Your task to perform on an android device: open sync settings in chrome Image 0: 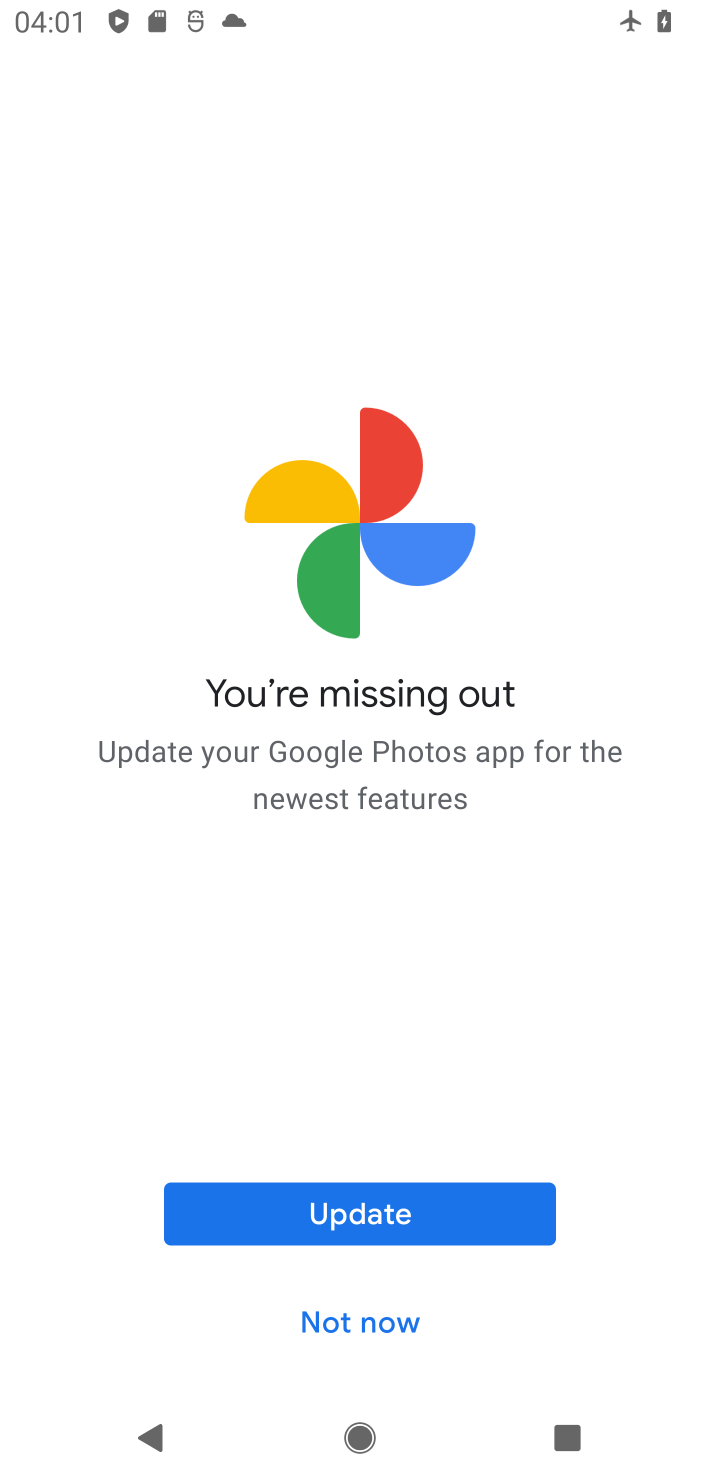
Step 0: press home button
Your task to perform on an android device: open sync settings in chrome Image 1: 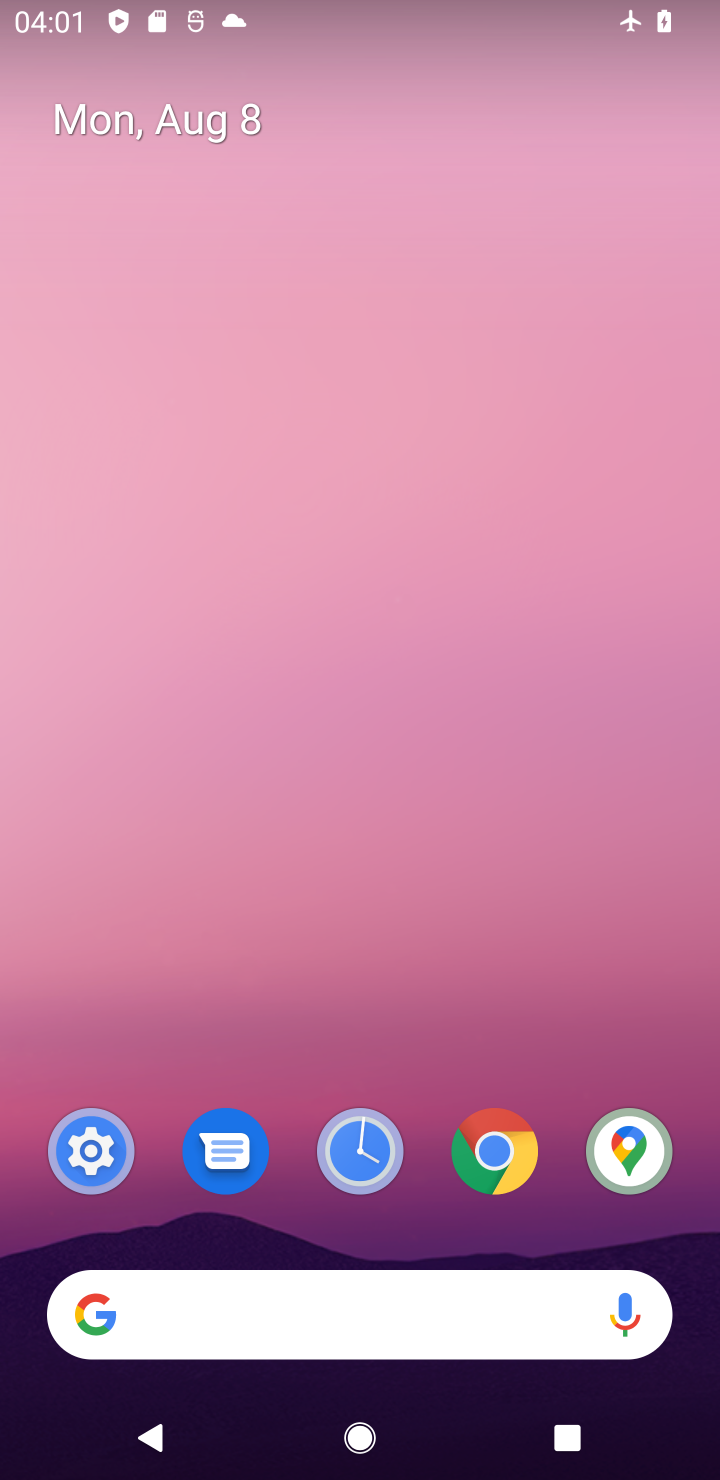
Step 1: click (534, 1137)
Your task to perform on an android device: open sync settings in chrome Image 2: 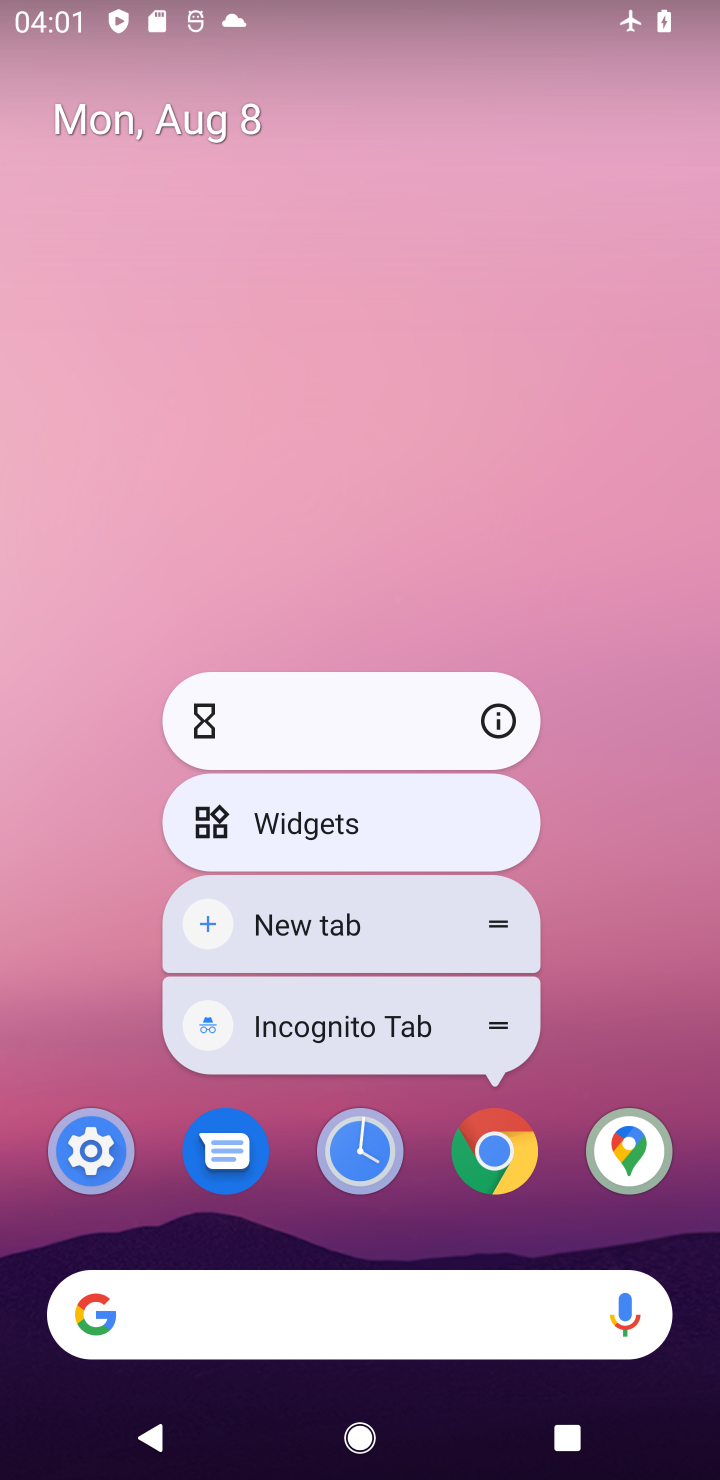
Step 2: click (487, 1168)
Your task to perform on an android device: open sync settings in chrome Image 3: 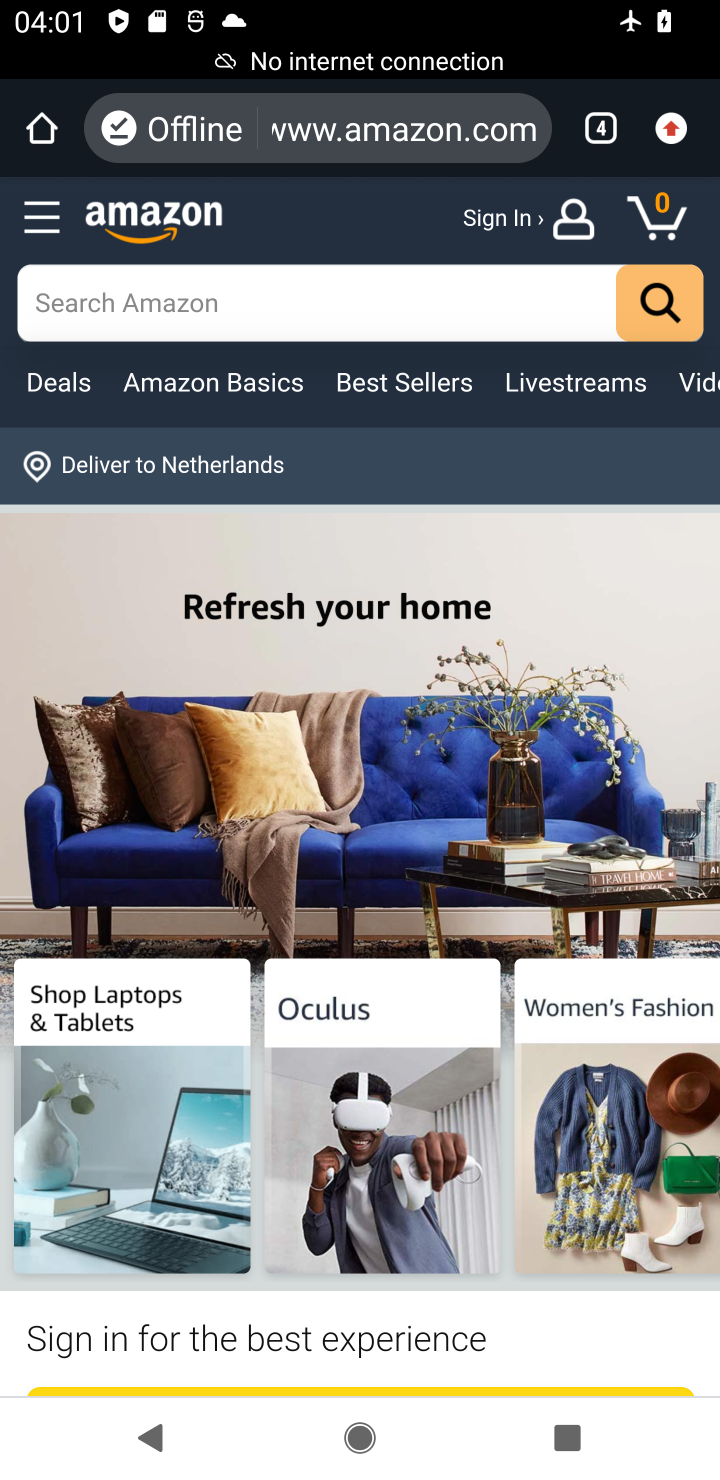
Step 3: click (677, 112)
Your task to perform on an android device: open sync settings in chrome Image 4: 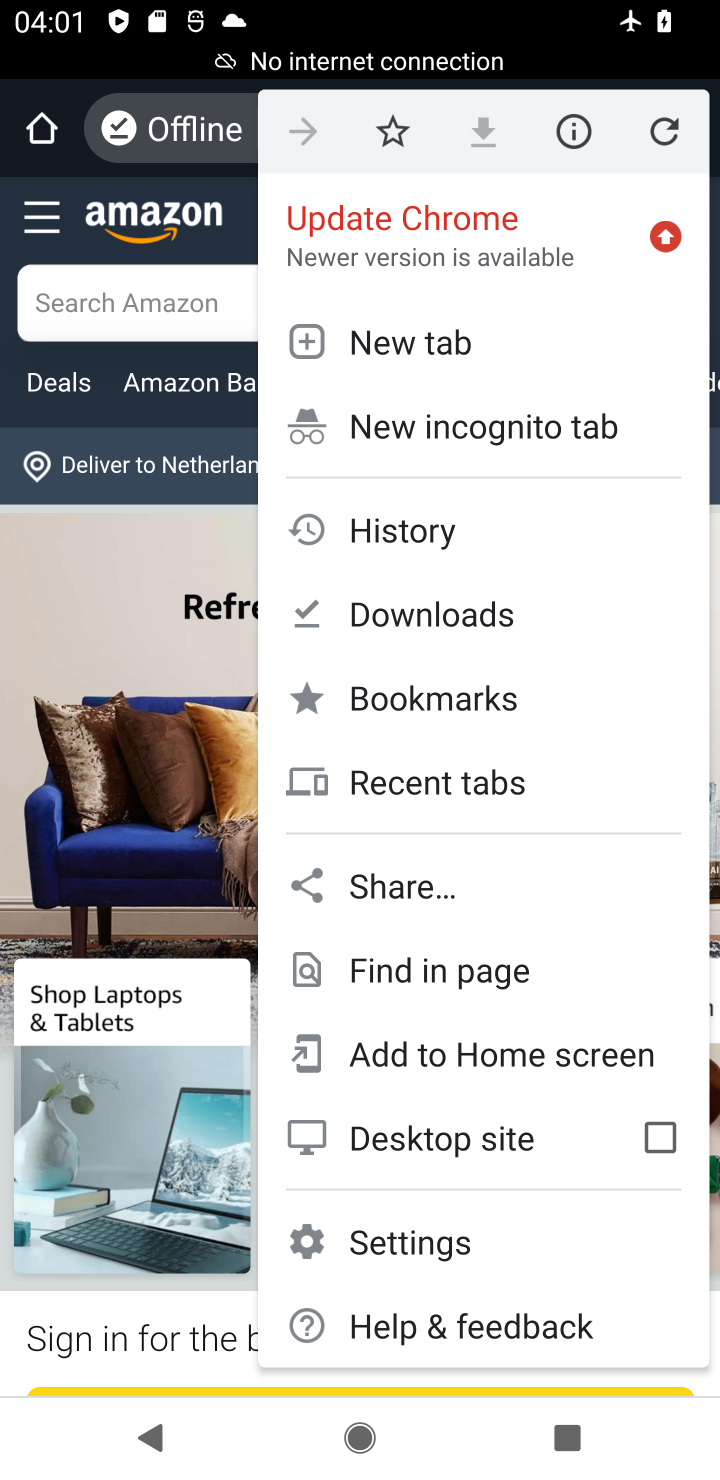
Step 4: click (484, 1237)
Your task to perform on an android device: open sync settings in chrome Image 5: 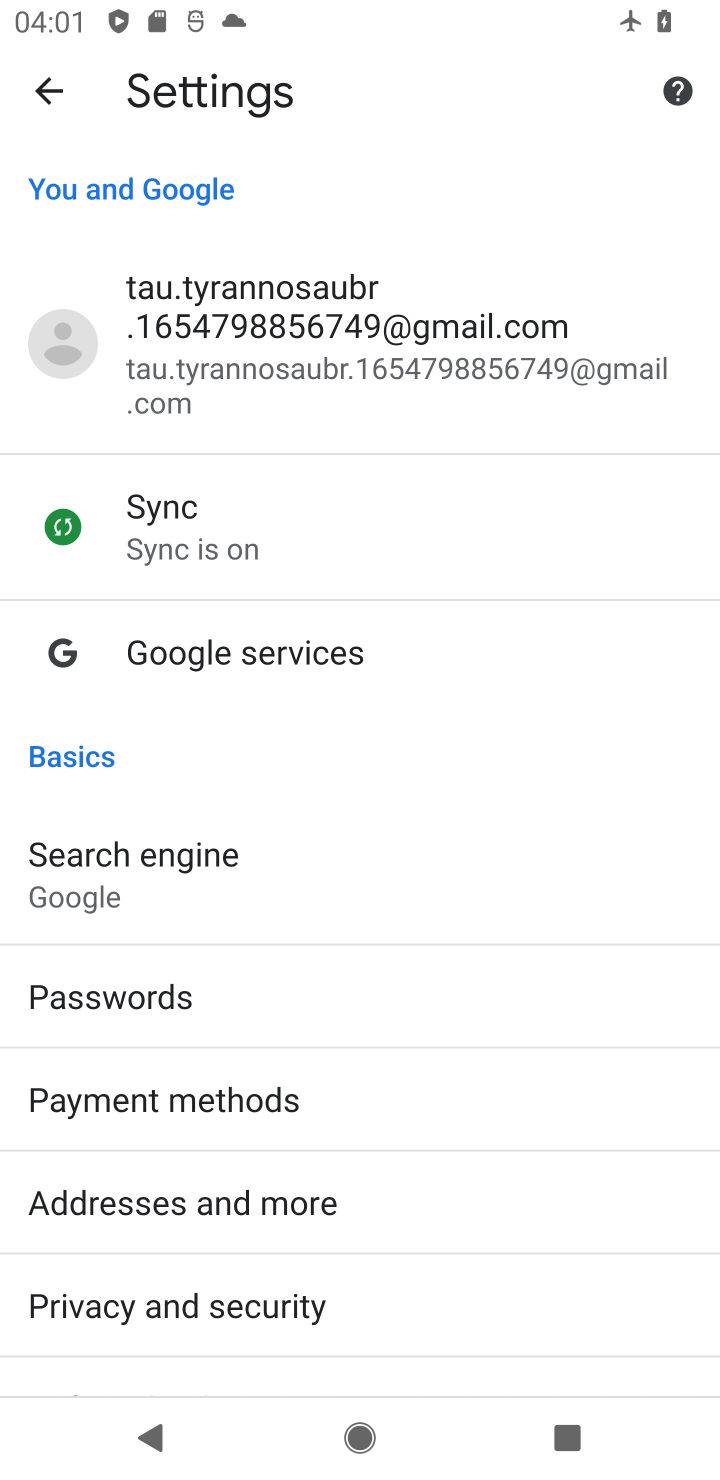
Step 5: click (268, 501)
Your task to perform on an android device: open sync settings in chrome Image 6: 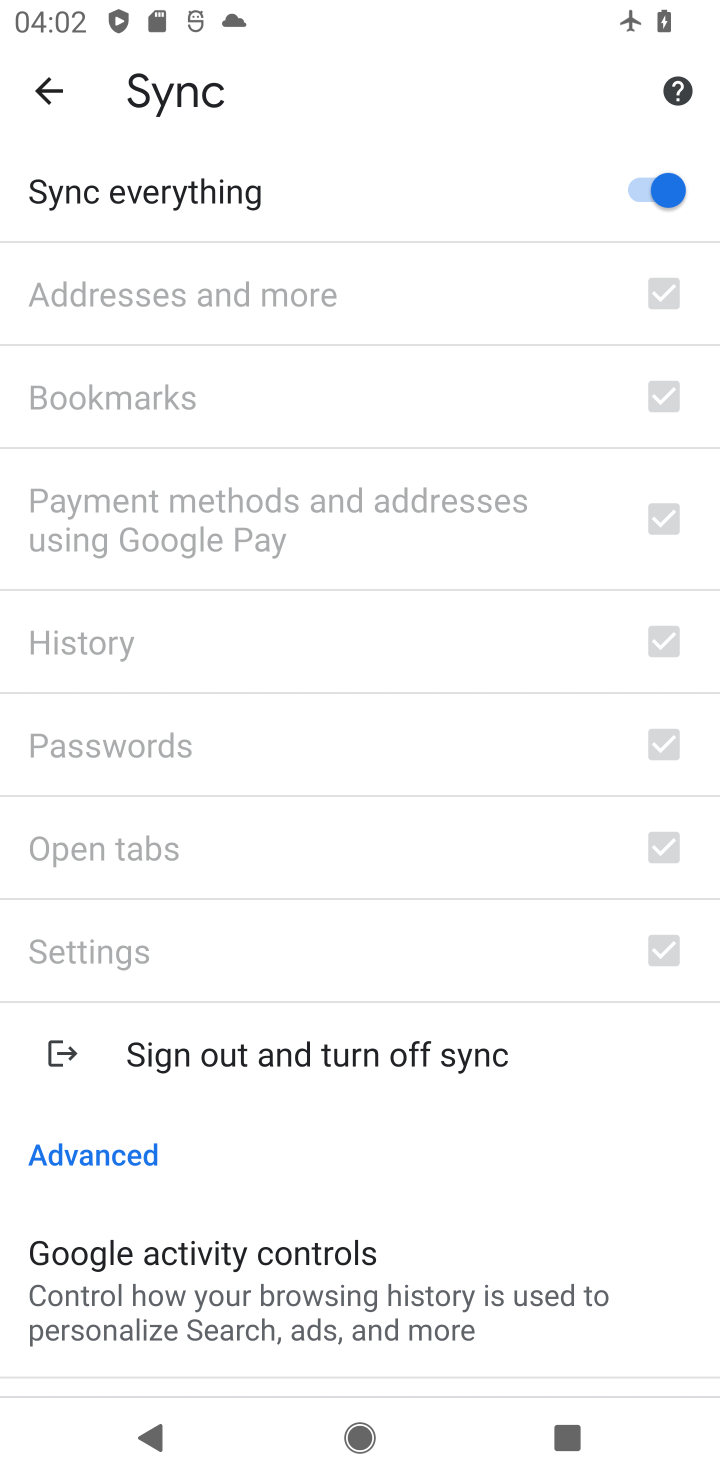
Step 6: task complete